Your task to perform on an android device: Open the settings Image 0: 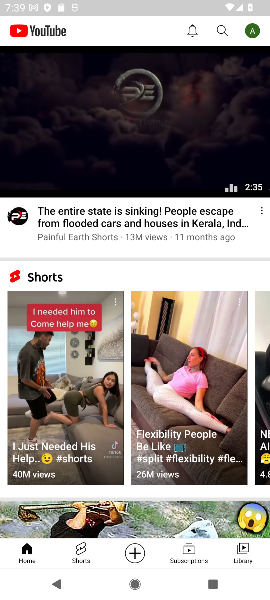
Step 0: press home button
Your task to perform on an android device: Open the settings Image 1: 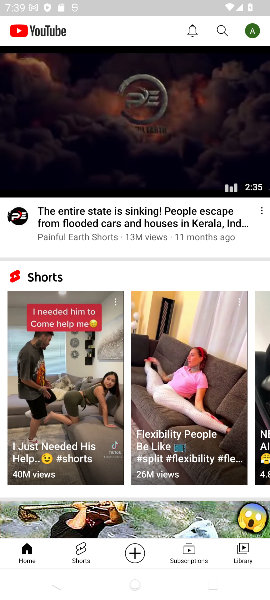
Step 1: press home button
Your task to perform on an android device: Open the settings Image 2: 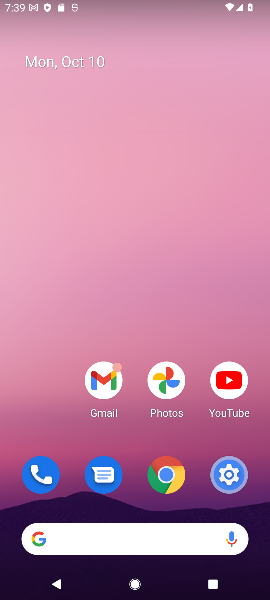
Step 2: press home button
Your task to perform on an android device: Open the settings Image 3: 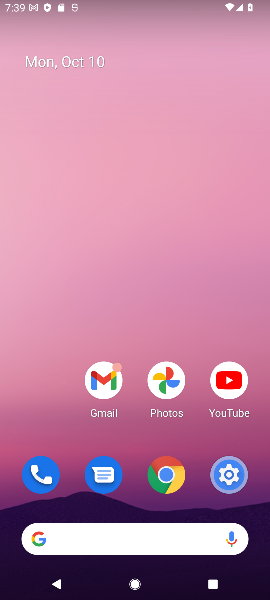
Step 3: click (136, 482)
Your task to perform on an android device: Open the settings Image 4: 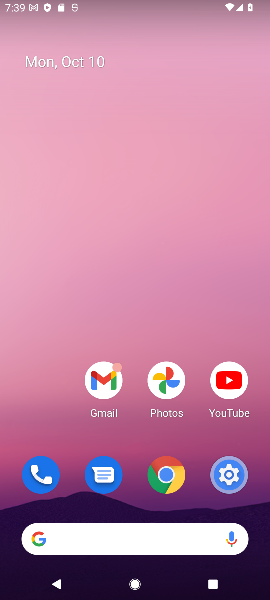
Step 4: drag from (124, 503) to (115, 191)
Your task to perform on an android device: Open the settings Image 5: 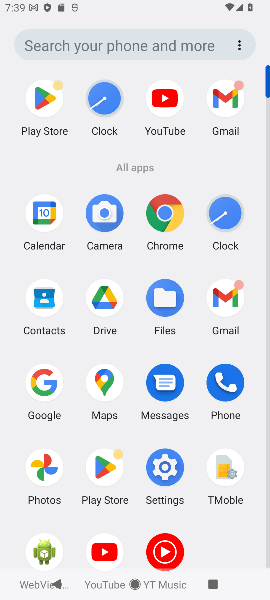
Step 5: click (161, 468)
Your task to perform on an android device: Open the settings Image 6: 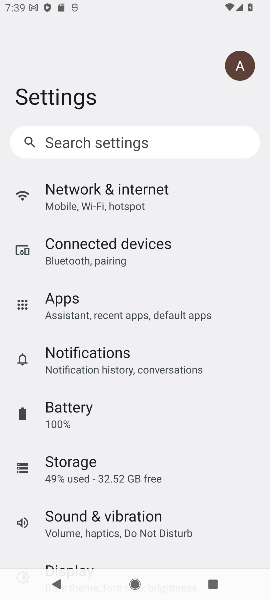
Step 6: task complete